Your task to perform on an android device: Open settings Image 0: 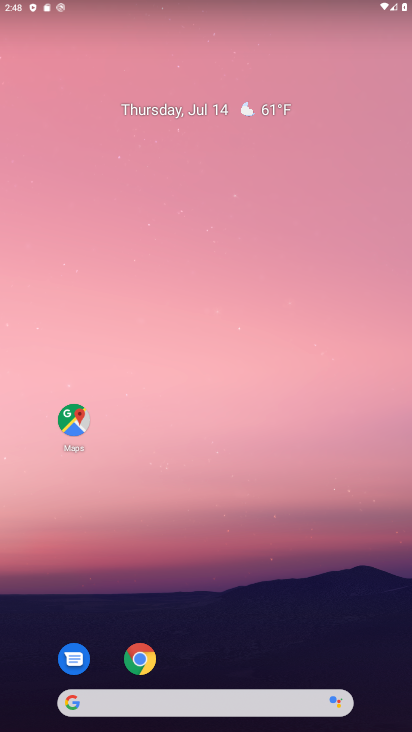
Step 0: drag from (229, 699) to (276, 186)
Your task to perform on an android device: Open settings Image 1: 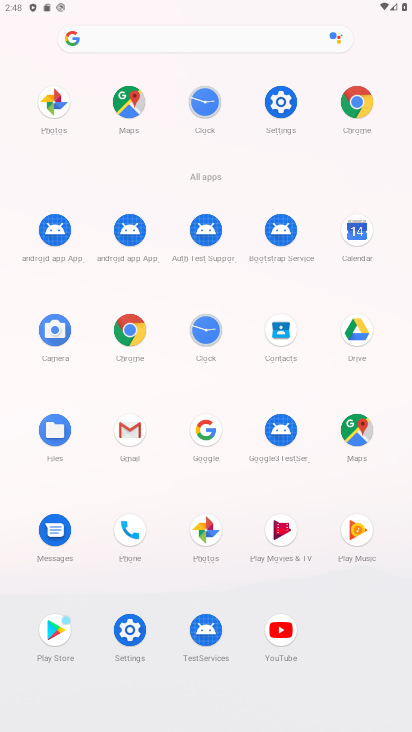
Step 1: click (279, 103)
Your task to perform on an android device: Open settings Image 2: 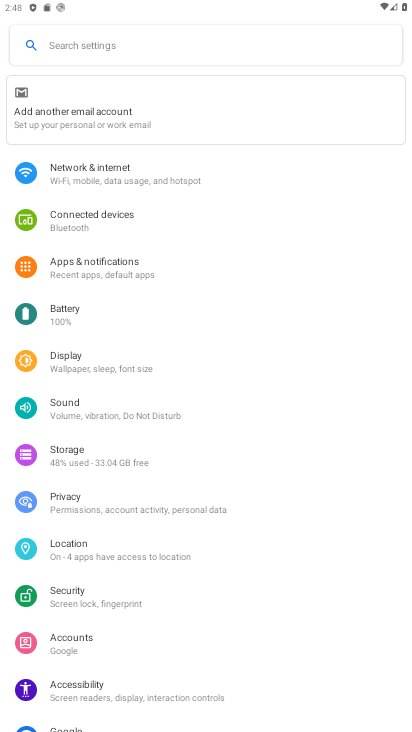
Step 2: task complete